Your task to perform on an android device: Go to privacy settings Image 0: 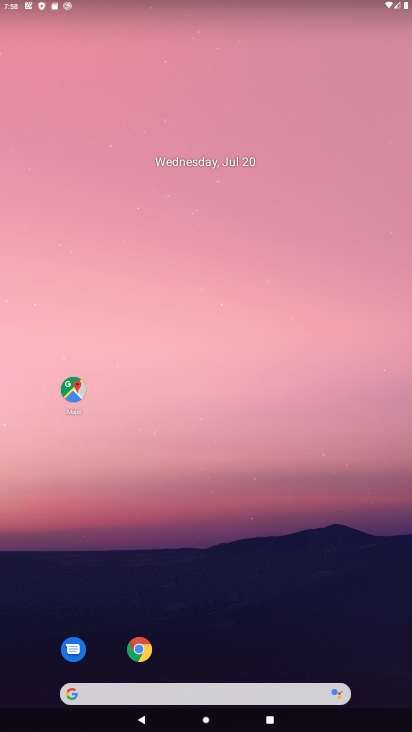
Step 0: drag from (192, 689) to (213, 38)
Your task to perform on an android device: Go to privacy settings Image 1: 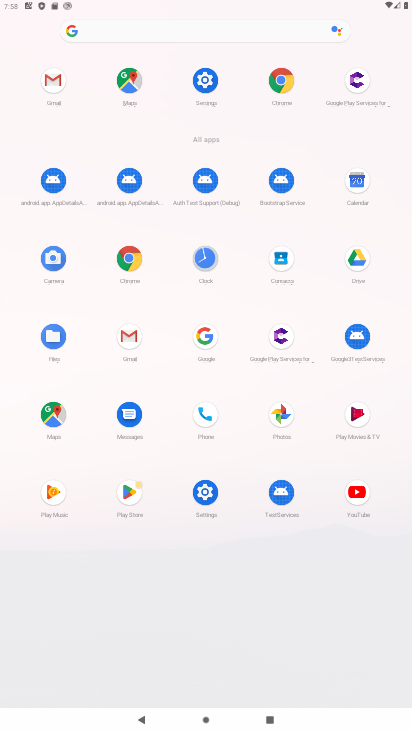
Step 1: click (206, 79)
Your task to perform on an android device: Go to privacy settings Image 2: 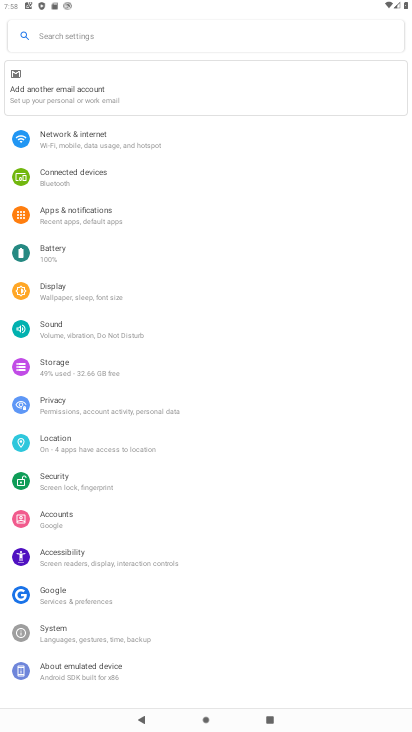
Step 2: click (55, 410)
Your task to perform on an android device: Go to privacy settings Image 3: 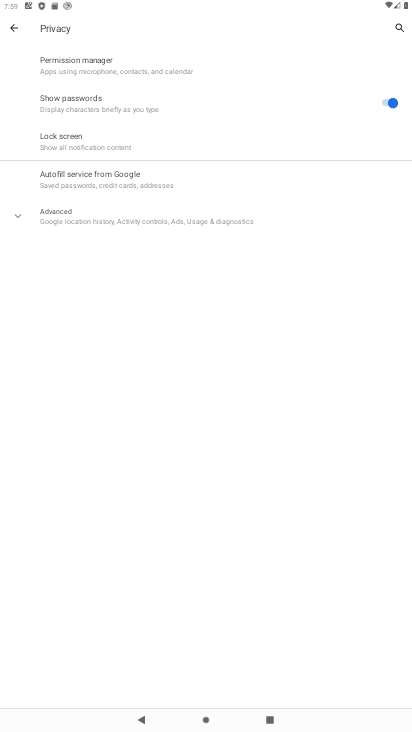
Step 3: task complete